Your task to perform on an android device: turn on notifications settings in the gmail app Image 0: 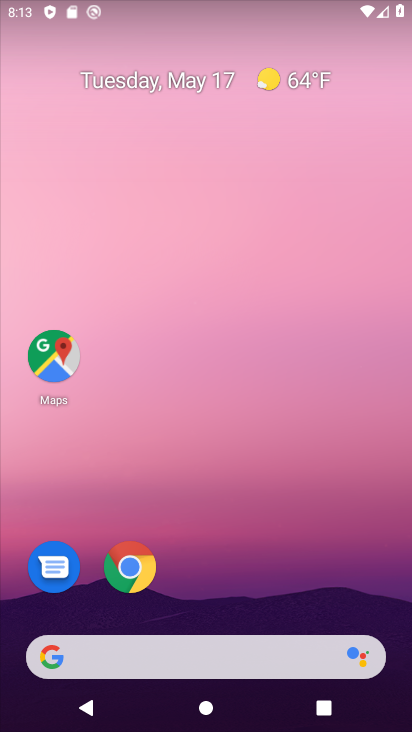
Step 0: drag from (350, 595) to (254, 23)
Your task to perform on an android device: turn on notifications settings in the gmail app Image 1: 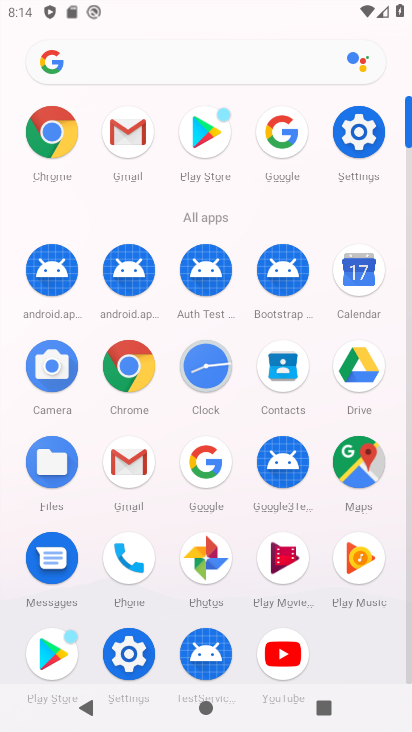
Step 1: click (114, 463)
Your task to perform on an android device: turn on notifications settings in the gmail app Image 2: 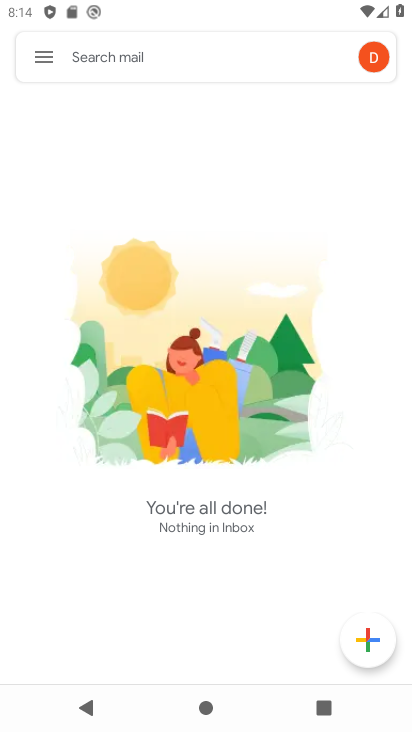
Step 2: click (42, 61)
Your task to perform on an android device: turn on notifications settings in the gmail app Image 3: 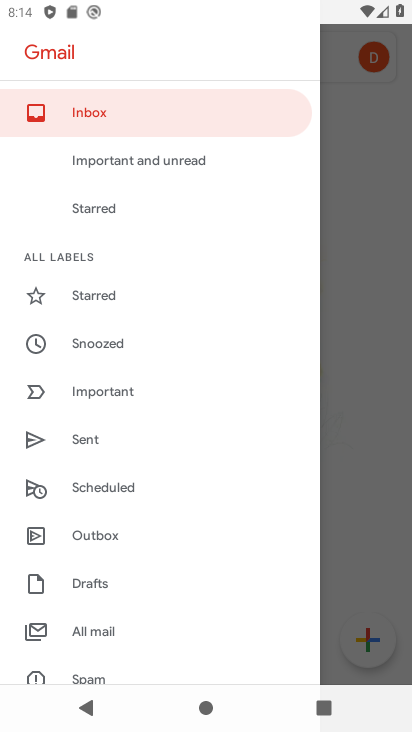
Step 3: drag from (125, 624) to (141, 251)
Your task to perform on an android device: turn on notifications settings in the gmail app Image 4: 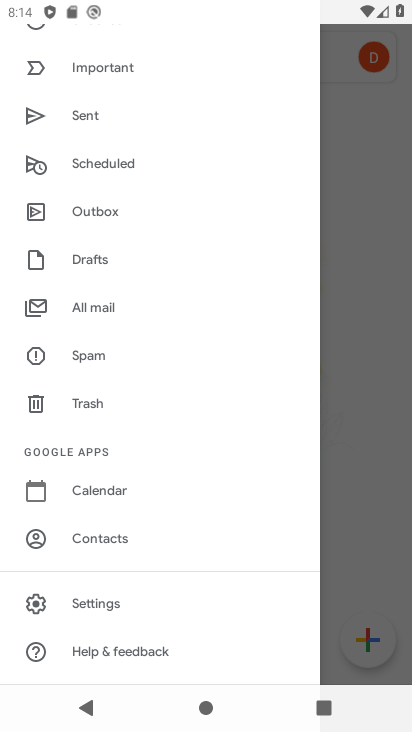
Step 4: click (127, 599)
Your task to perform on an android device: turn on notifications settings in the gmail app Image 5: 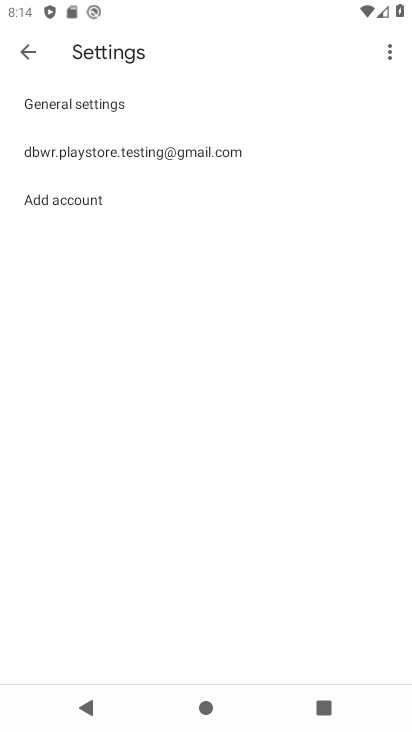
Step 5: click (180, 156)
Your task to perform on an android device: turn on notifications settings in the gmail app Image 6: 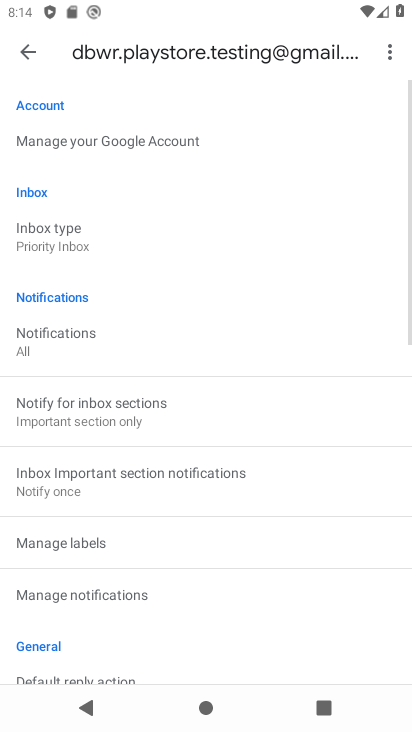
Step 6: click (60, 352)
Your task to perform on an android device: turn on notifications settings in the gmail app Image 7: 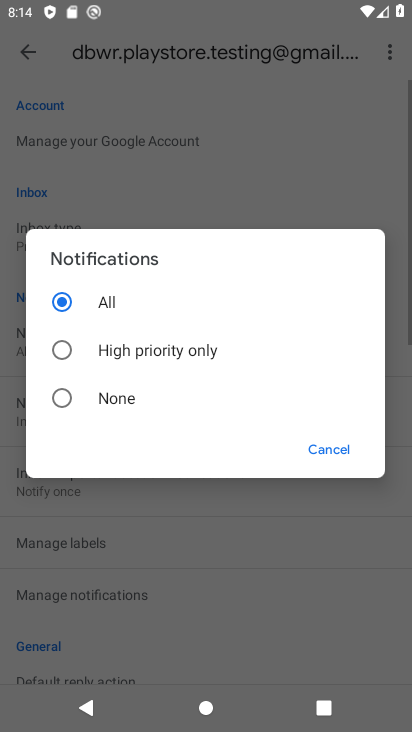
Step 7: click (107, 392)
Your task to perform on an android device: turn on notifications settings in the gmail app Image 8: 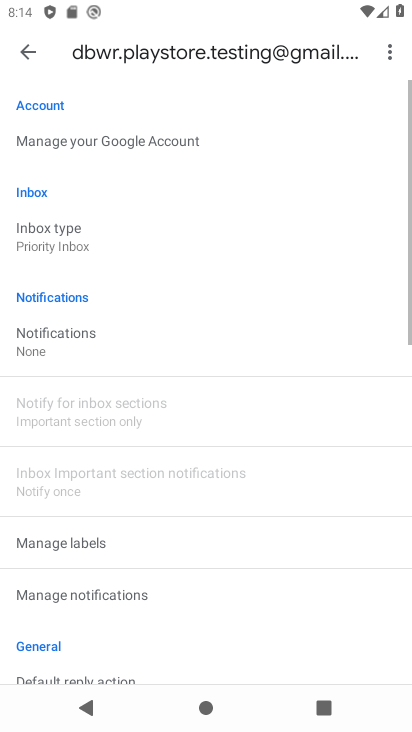
Step 8: click (104, 347)
Your task to perform on an android device: turn on notifications settings in the gmail app Image 9: 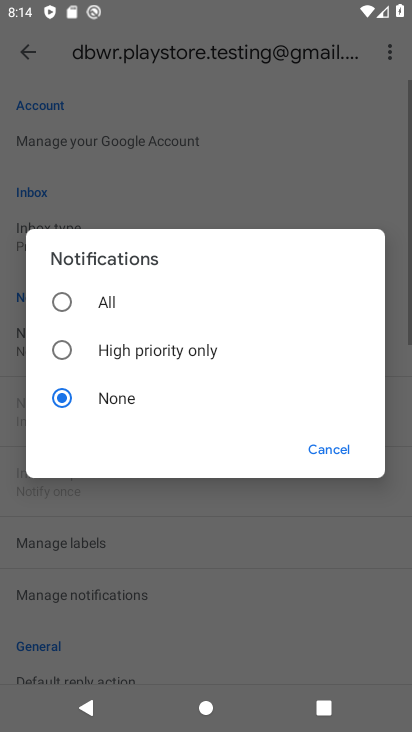
Step 9: click (90, 308)
Your task to perform on an android device: turn on notifications settings in the gmail app Image 10: 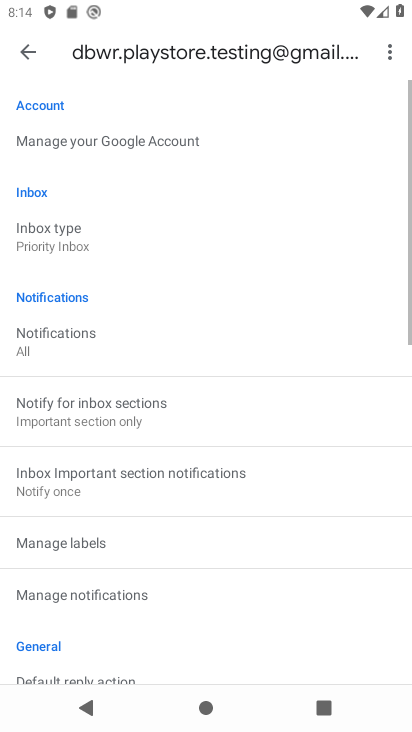
Step 10: task complete